Your task to perform on an android device: What is the recent news? Image 0: 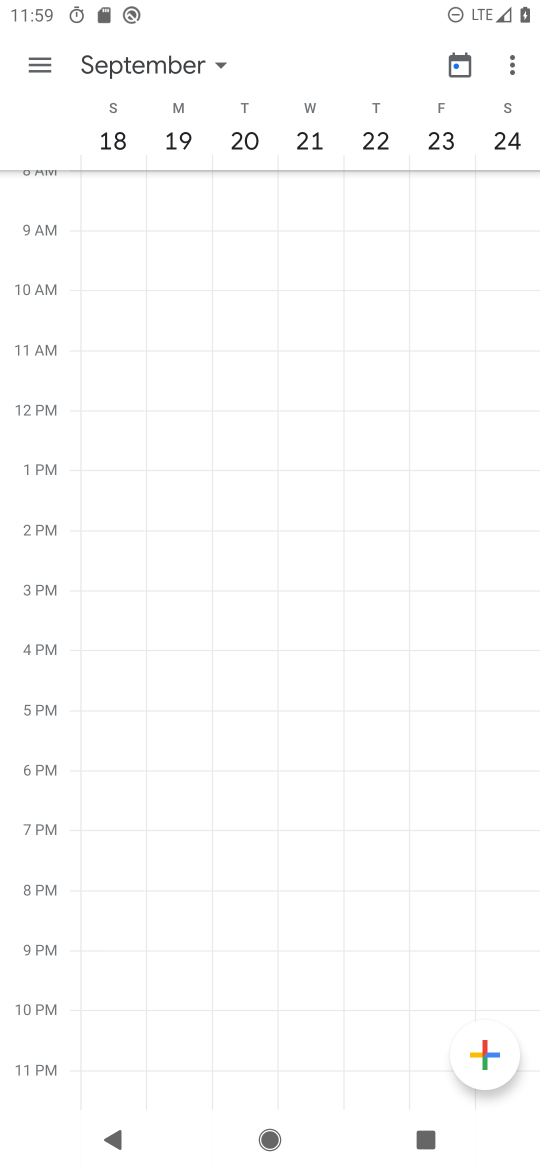
Step 0: press home button
Your task to perform on an android device: What is the recent news? Image 1: 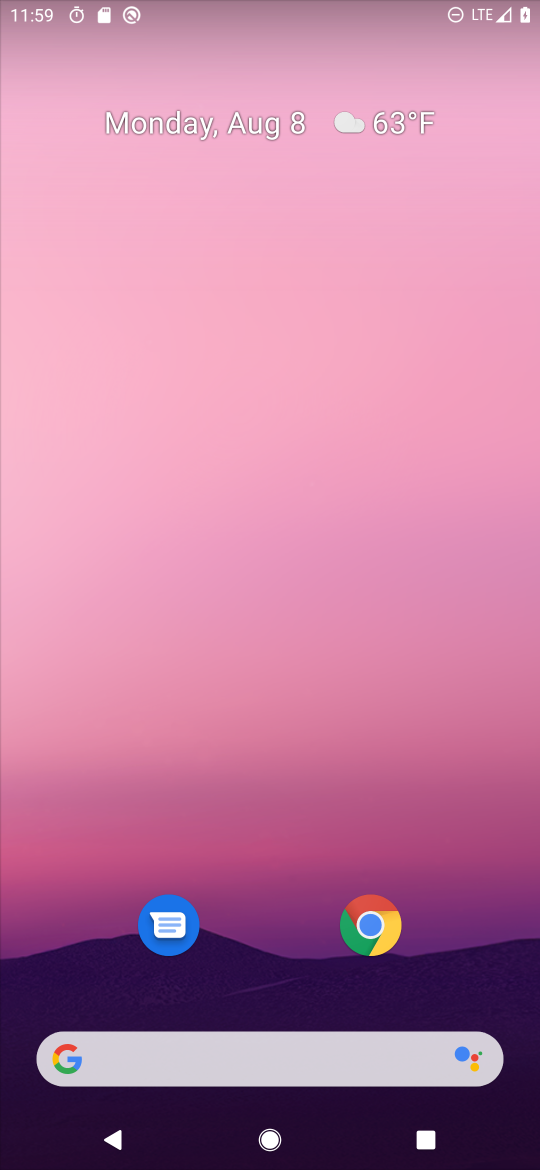
Step 1: drag from (284, 945) to (439, 108)
Your task to perform on an android device: What is the recent news? Image 2: 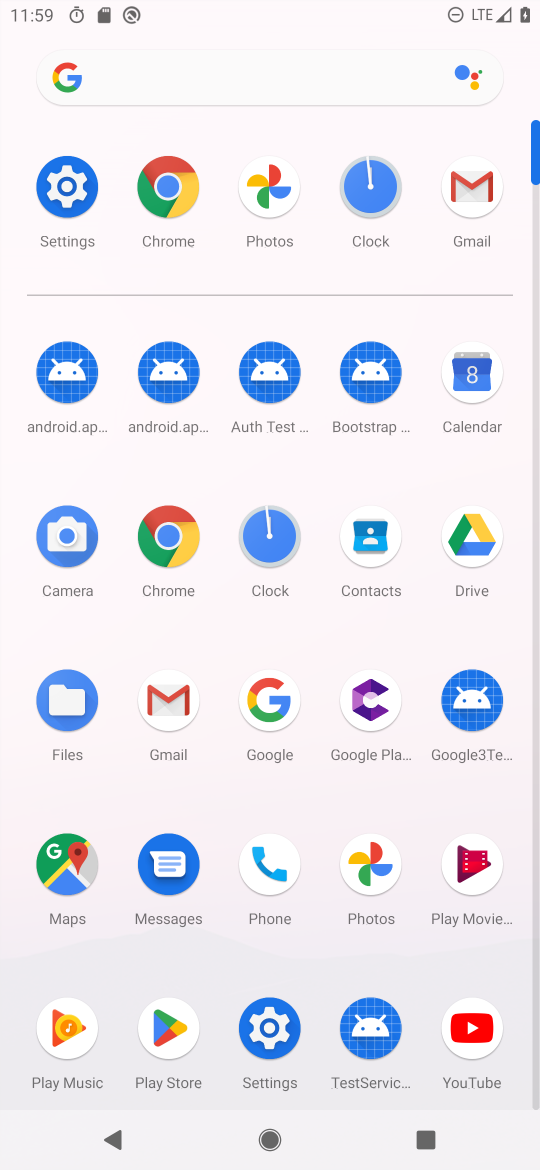
Step 2: click (169, 519)
Your task to perform on an android device: What is the recent news? Image 3: 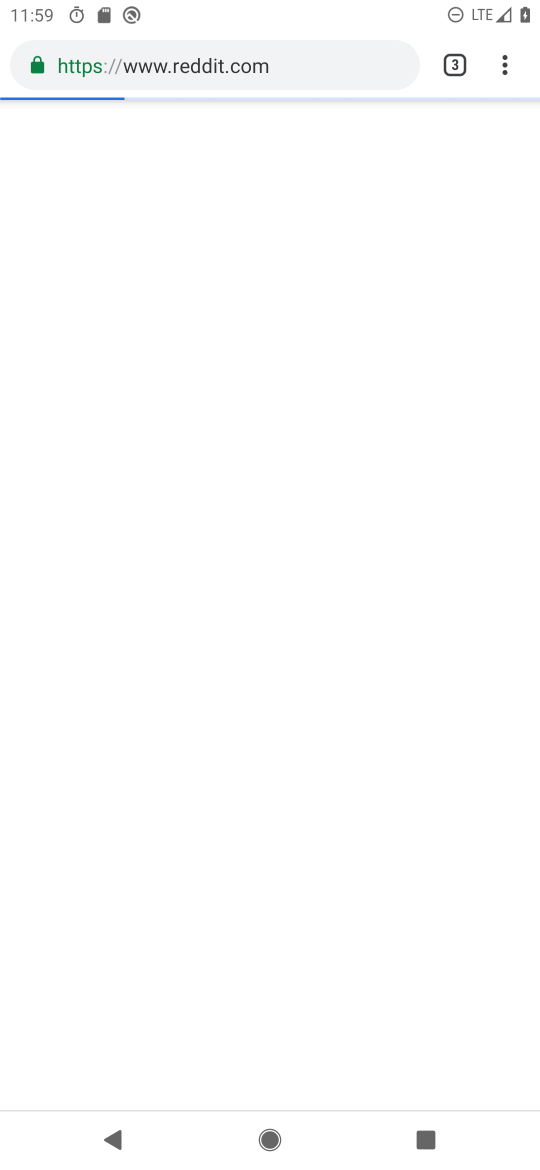
Step 3: click (246, 58)
Your task to perform on an android device: What is the recent news? Image 4: 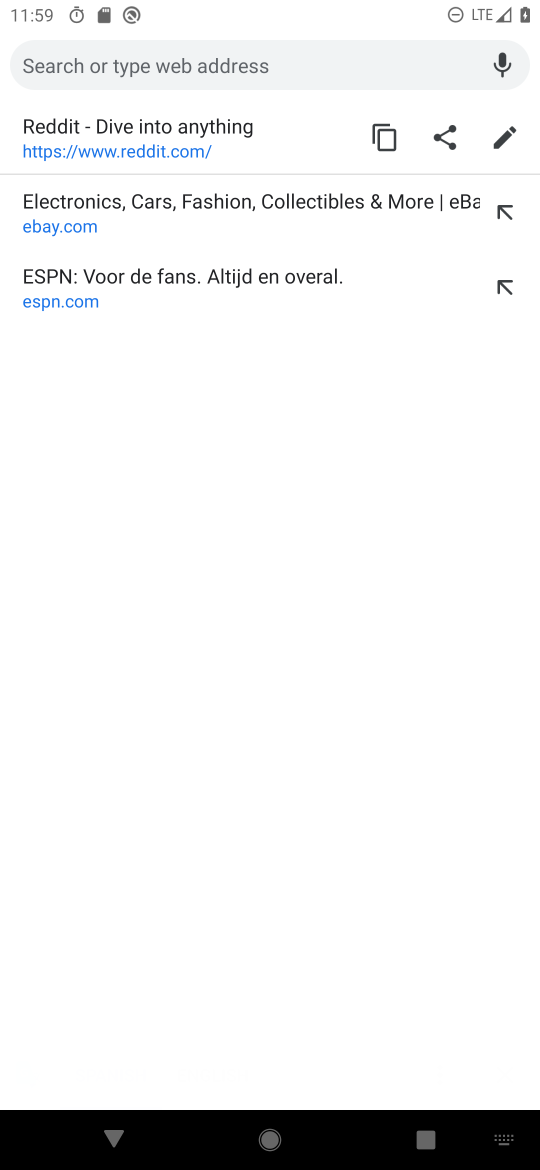
Step 4: type "news"
Your task to perform on an android device: What is the recent news? Image 5: 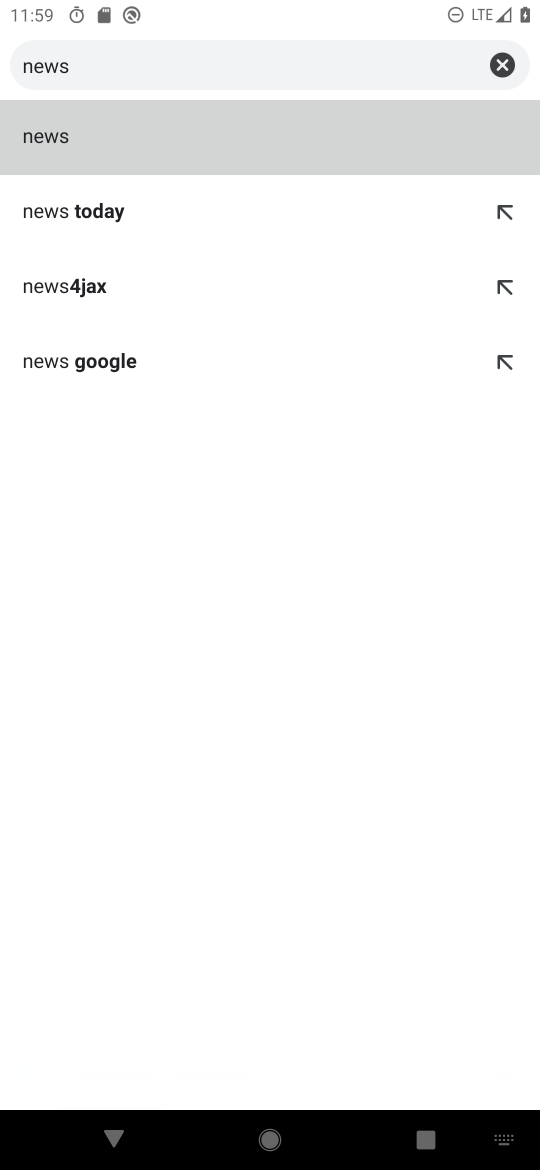
Step 5: click (142, 146)
Your task to perform on an android device: What is the recent news? Image 6: 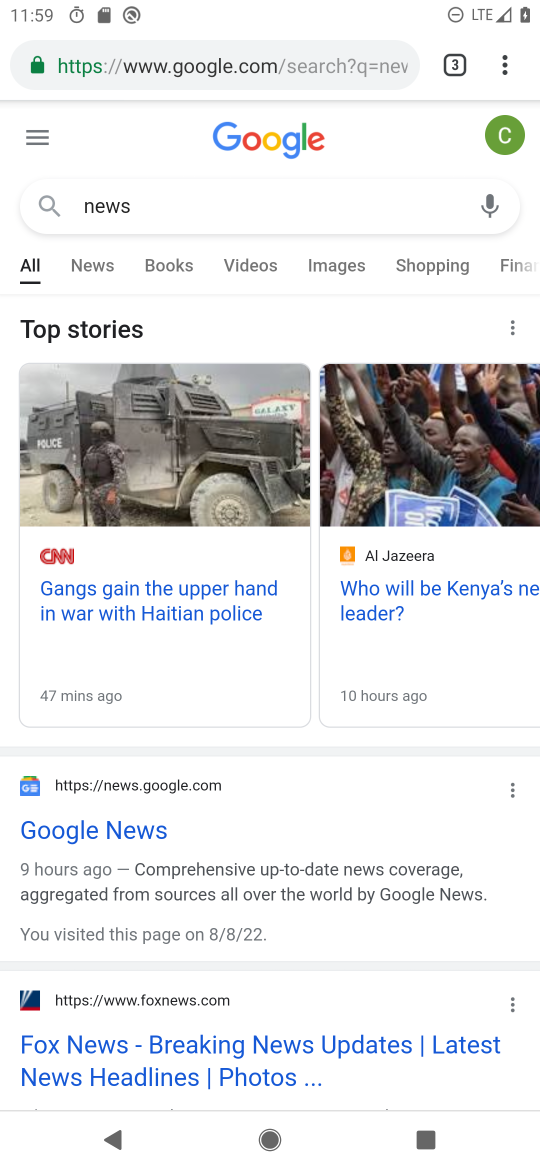
Step 6: click (123, 823)
Your task to perform on an android device: What is the recent news? Image 7: 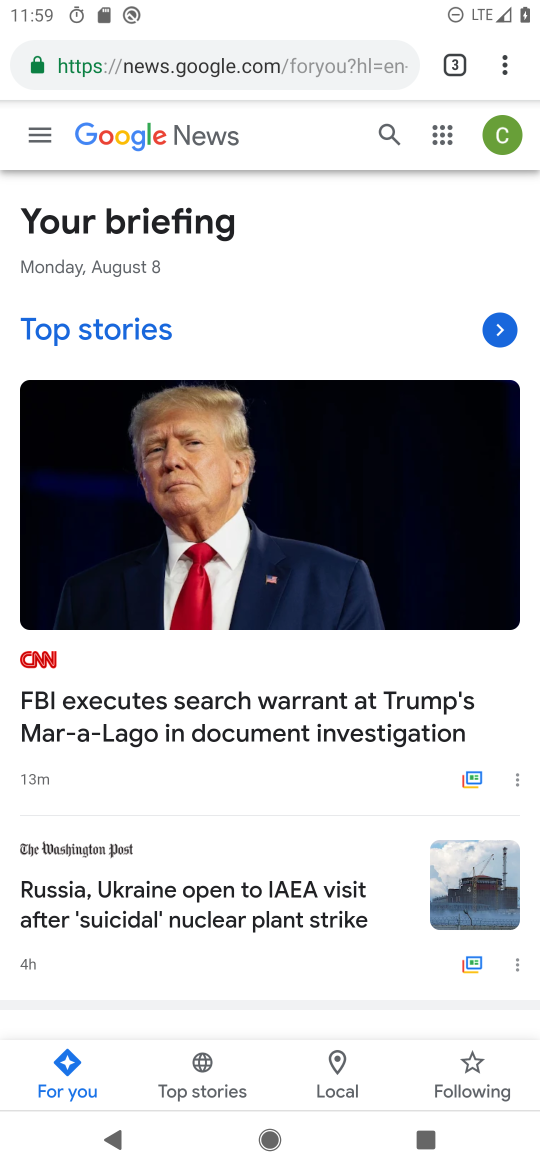
Step 7: task complete